Your task to perform on an android device: allow cookies in the chrome app Image 0: 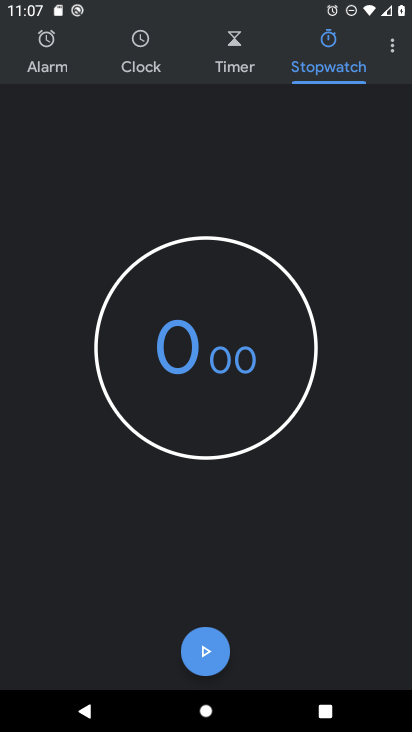
Step 0: press home button
Your task to perform on an android device: allow cookies in the chrome app Image 1: 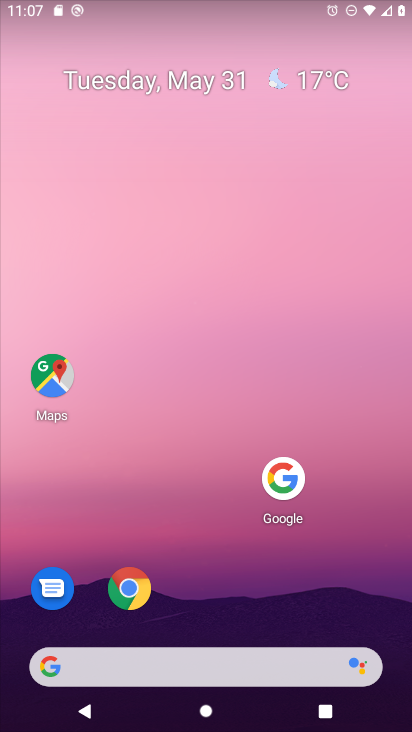
Step 1: click (127, 590)
Your task to perform on an android device: allow cookies in the chrome app Image 2: 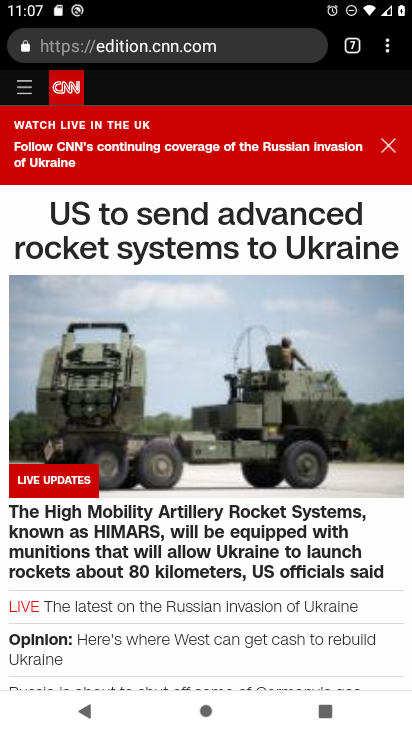
Step 2: drag from (382, 50) to (253, 551)
Your task to perform on an android device: allow cookies in the chrome app Image 3: 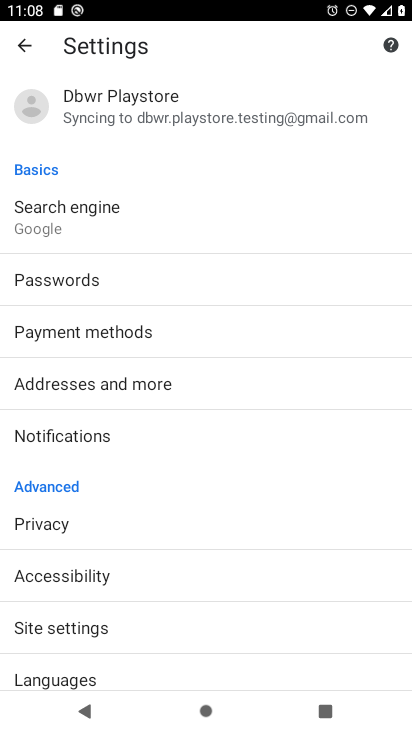
Step 3: click (62, 618)
Your task to perform on an android device: allow cookies in the chrome app Image 4: 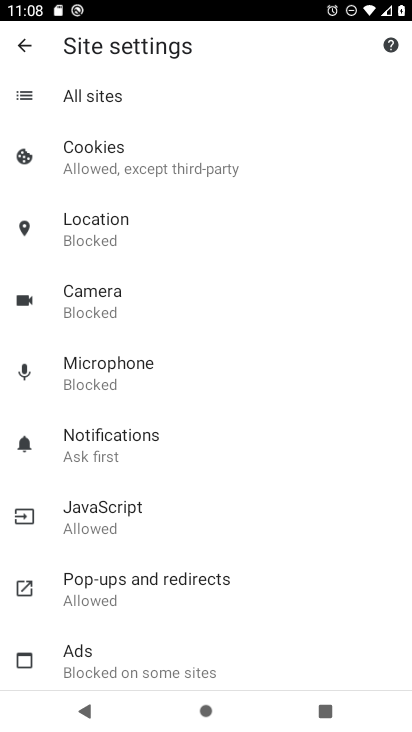
Step 4: click (146, 157)
Your task to perform on an android device: allow cookies in the chrome app Image 5: 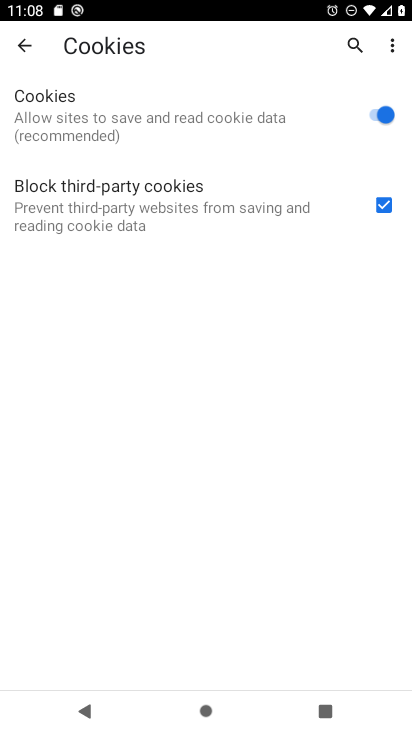
Step 5: task complete